Your task to perform on an android device: change alarm snooze length Image 0: 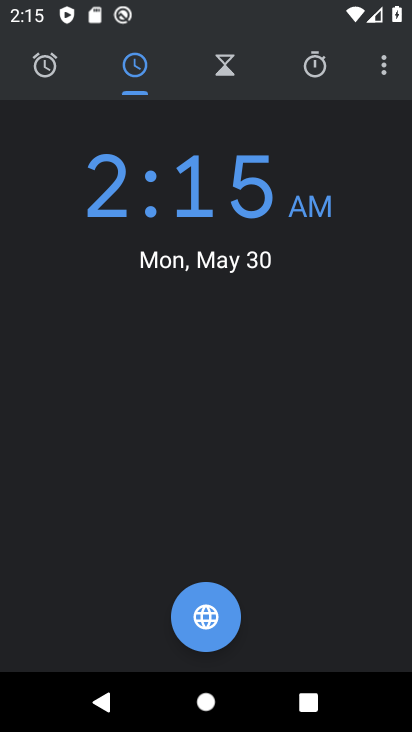
Step 0: click (384, 72)
Your task to perform on an android device: change alarm snooze length Image 1: 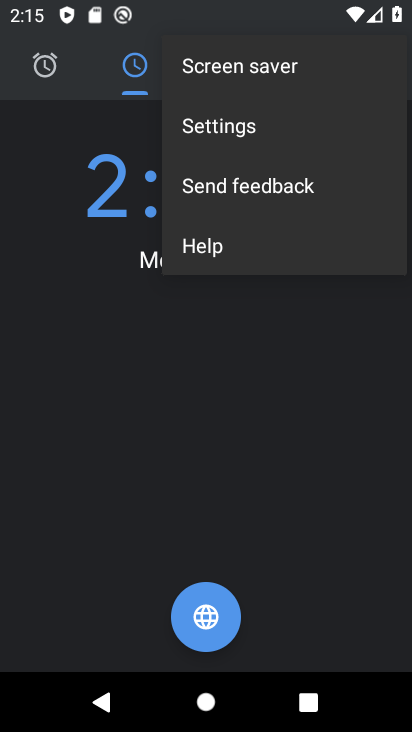
Step 1: click (257, 134)
Your task to perform on an android device: change alarm snooze length Image 2: 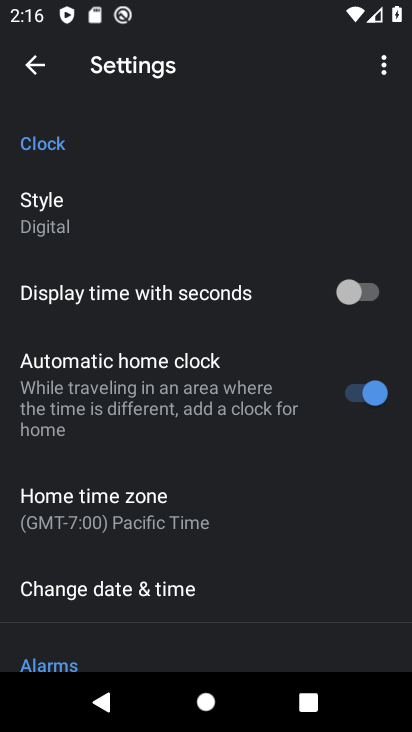
Step 2: drag from (281, 564) to (346, 132)
Your task to perform on an android device: change alarm snooze length Image 3: 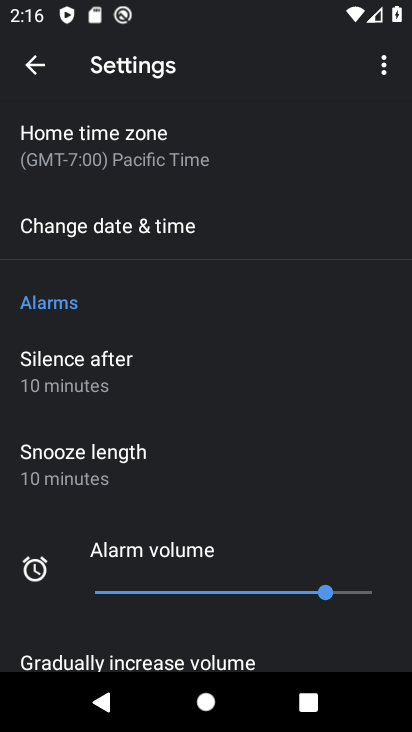
Step 3: click (88, 455)
Your task to perform on an android device: change alarm snooze length Image 4: 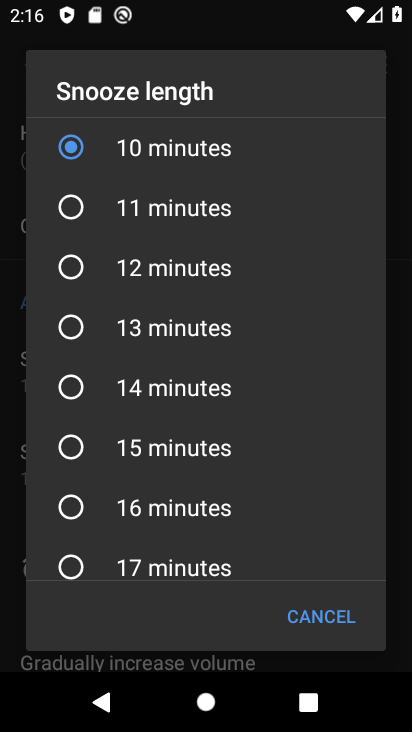
Step 4: click (156, 210)
Your task to perform on an android device: change alarm snooze length Image 5: 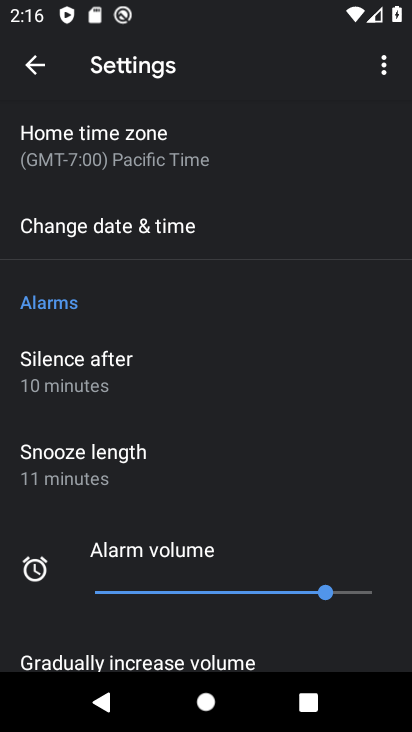
Step 5: task complete